Your task to perform on an android device: Turn on the flashlight Image 0: 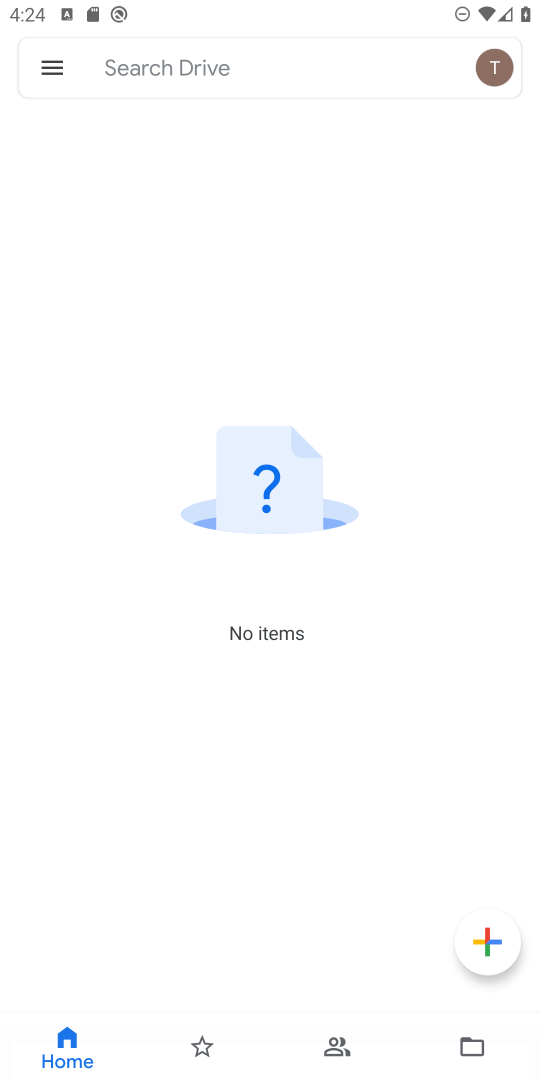
Step 0: task impossible